Your task to perform on an android device: Go to notification settings Image 0: 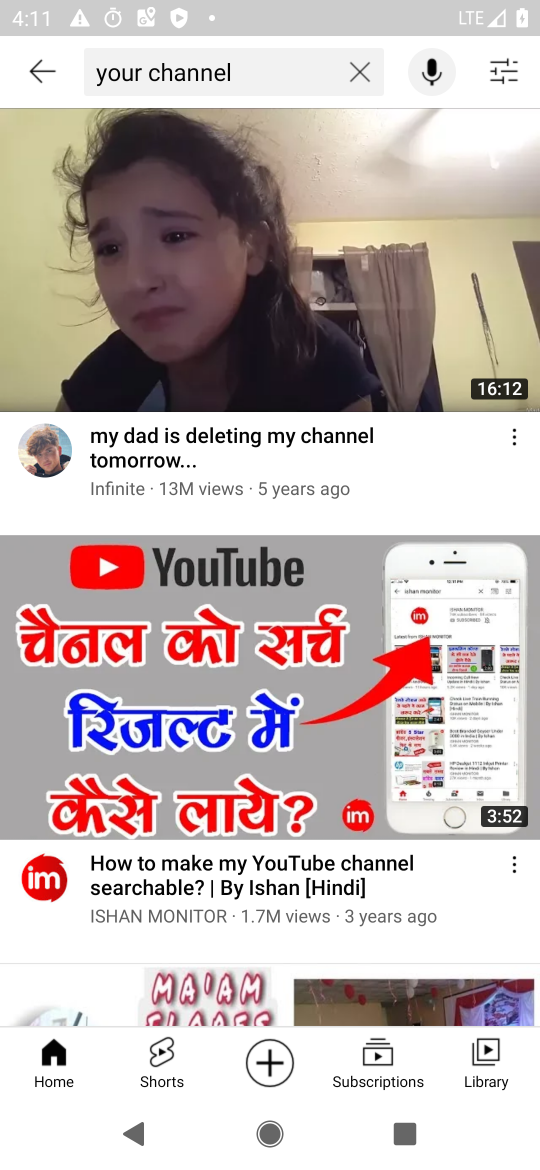
Step 0: press home button
Your task to perform on an android device: Go to notification settings Image 1: 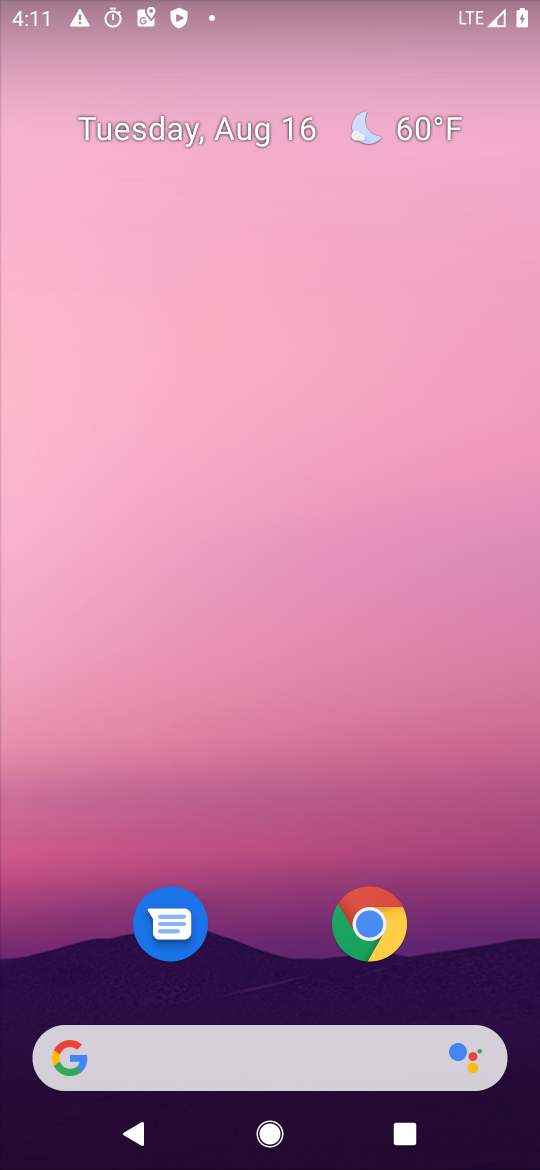
Step 1: drag from (281, 990) to (178, 78)
Your task to perform on an android device: Go to notification settings Image 2: 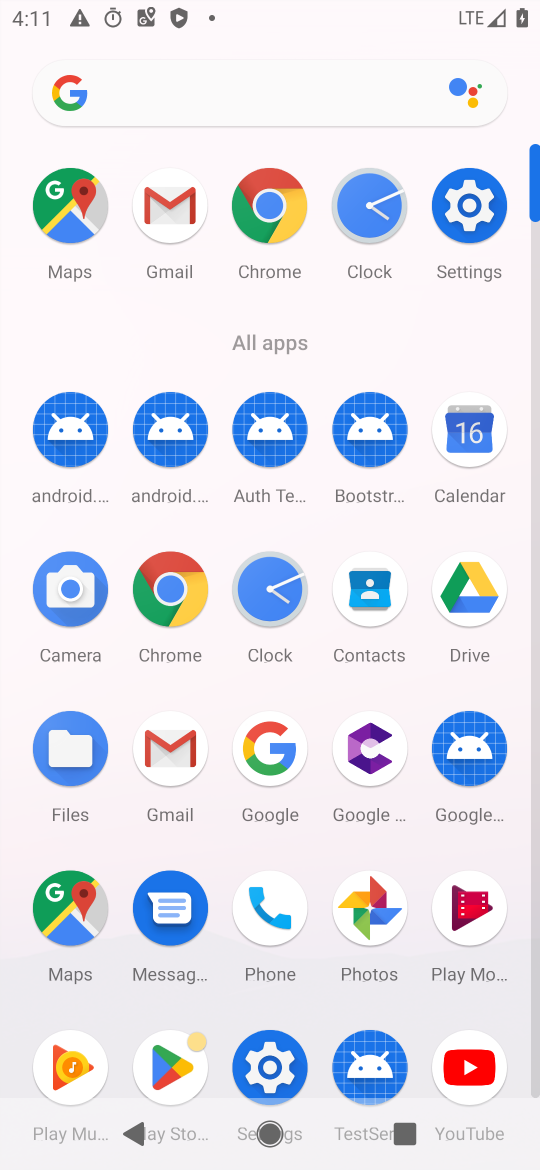
Step 2: click (482, 216)
Your task to perform on an android device: Go to notification settings Image 3: 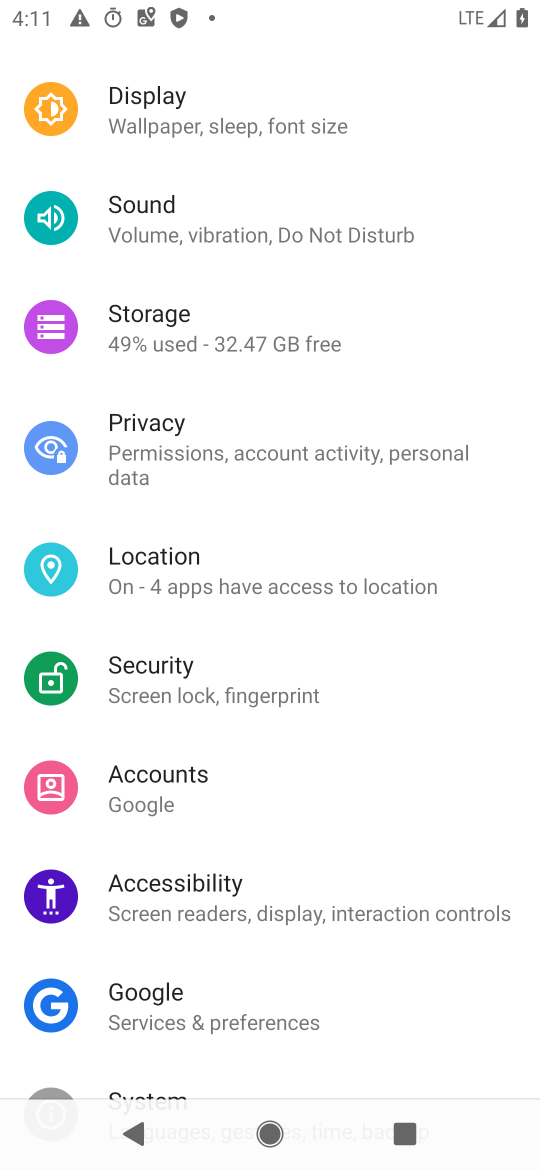
Step 3: drag from (268, 179) to (477, 751)
Your task to perform on an android device: Go to notification settings Image 4: 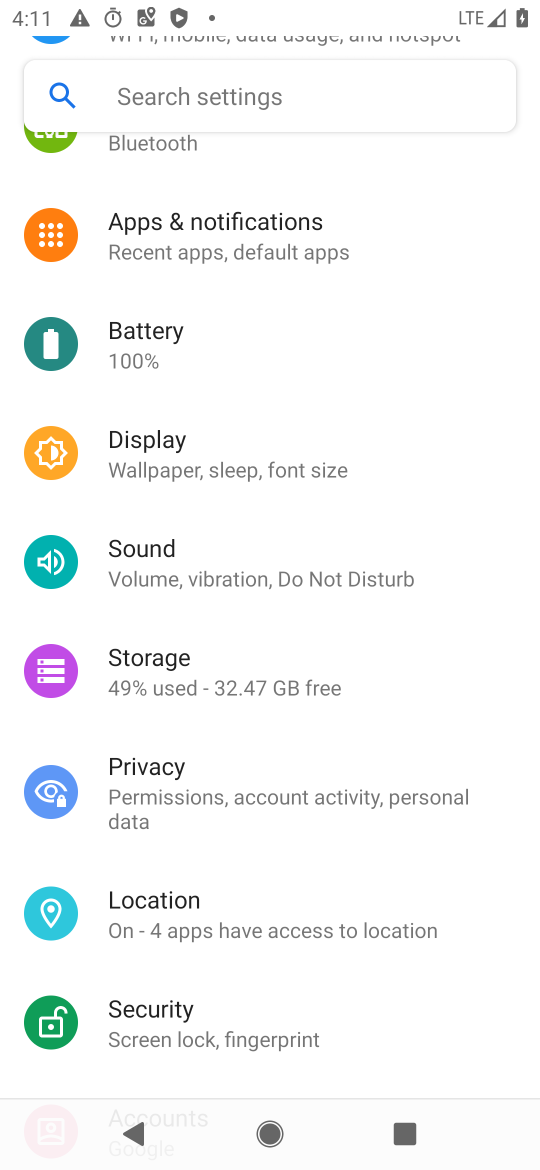
Step 4: click (182, 258)
Your task to perform on an android device: Go to notification settings Image 5: 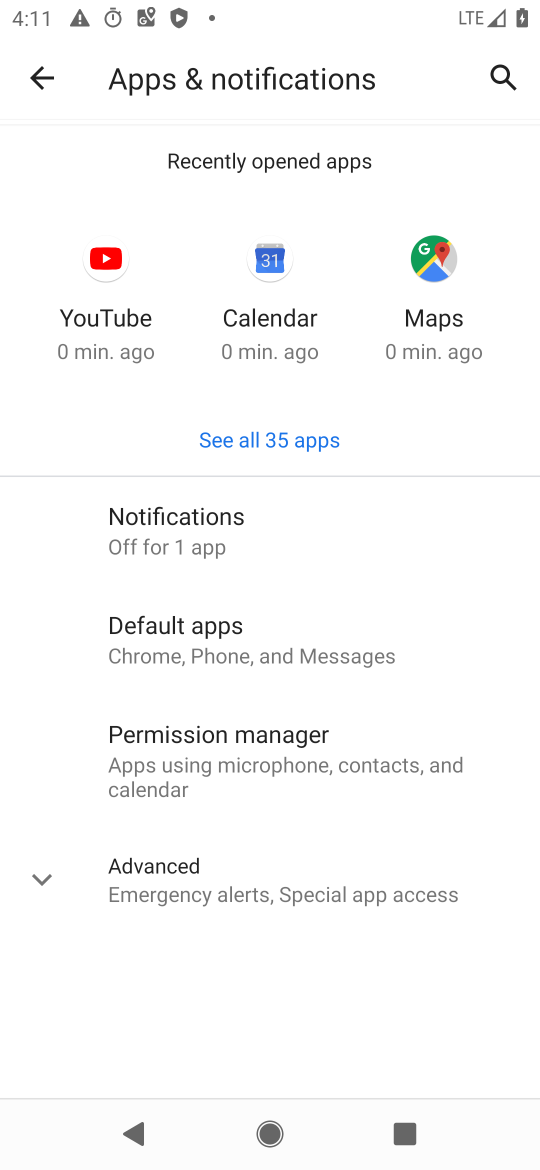
Step 5: task complete